Your task to perform on an android device: turn on airplane mode Image 0: 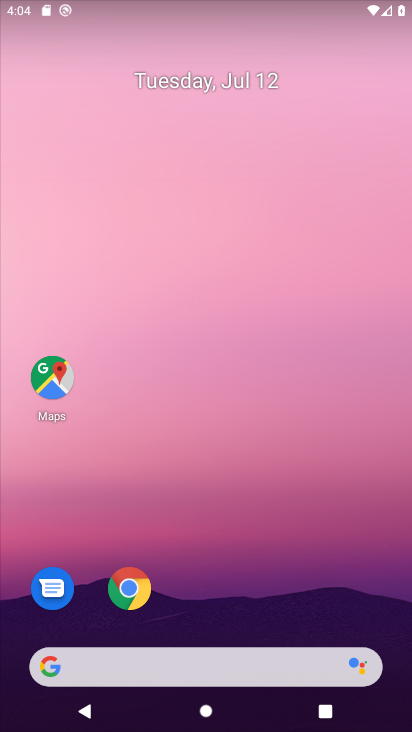
Step 0: drag from (202, 640) to (296, 61)
Your task to perform on an android device: turn on airplane mode Image 1: 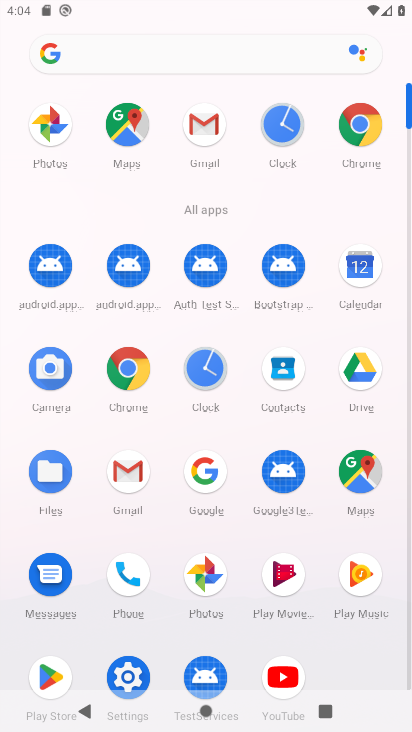
Step 1: click (131, 691)
Your task to perform on an android device: turn on airplane mode Image 2: 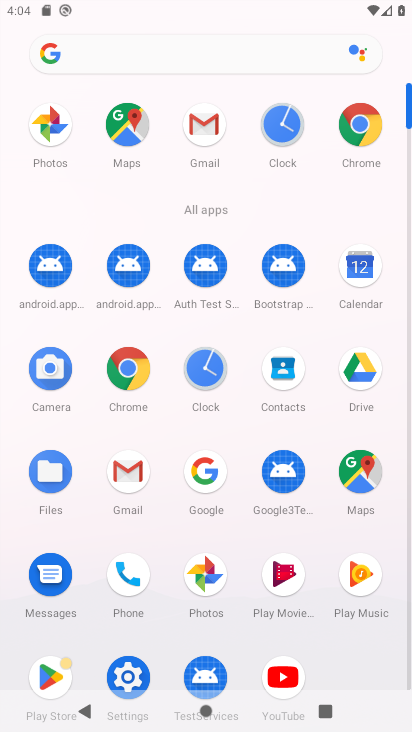
Step 2: click (128, 681)
Your task to perform on an android device: turn on airplane mode Image 3: 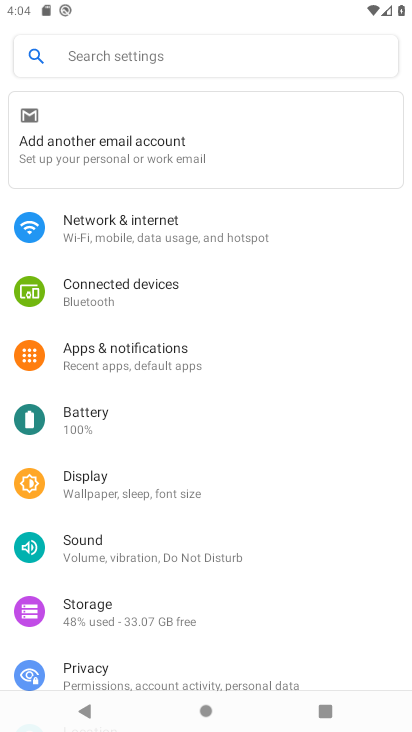
Step 3: click (151, 225)
Your task to perform on an android device: turn on airplane mode Image 4: 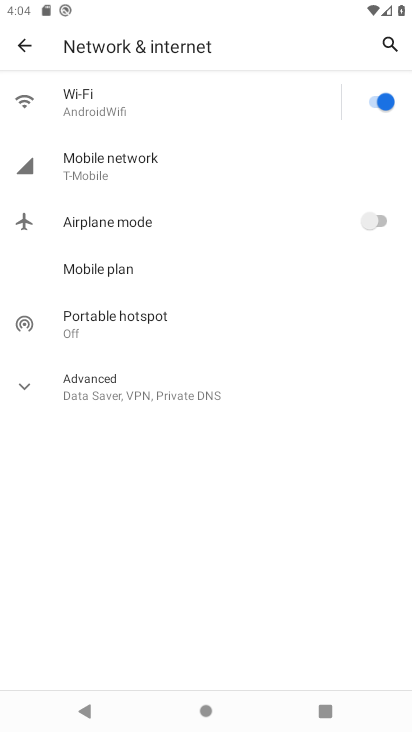
Step 4: click (382, 222)
Your task to perform on an android device: turn on airplane mode Image 5: 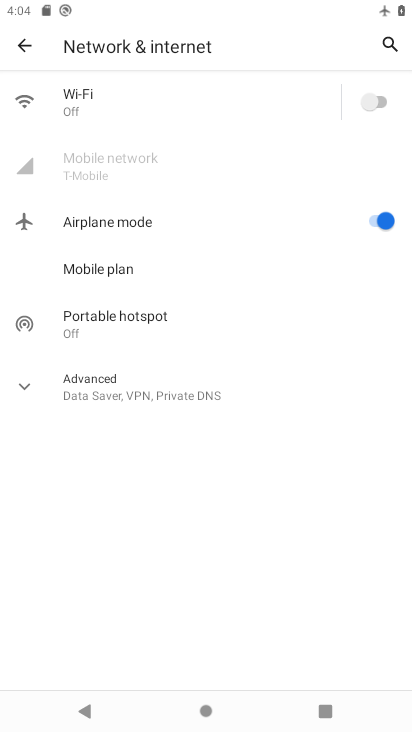
Step 5: task complete